Your task to perform on an android device: When is my next meeting? Image 0: 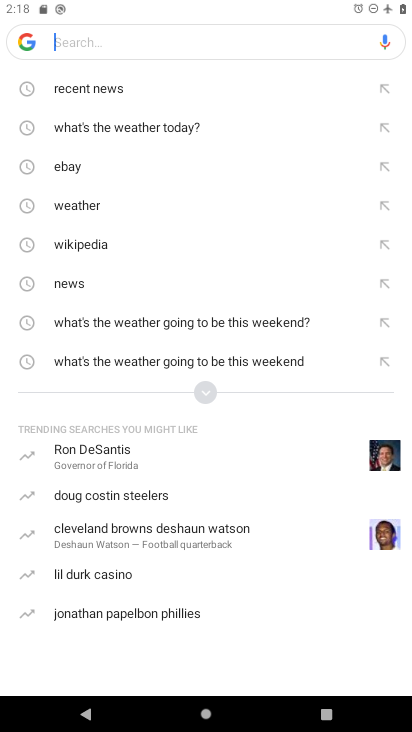
Step 0: press home button
Your task to perform on an android device: When is my next meeting? Image 1: 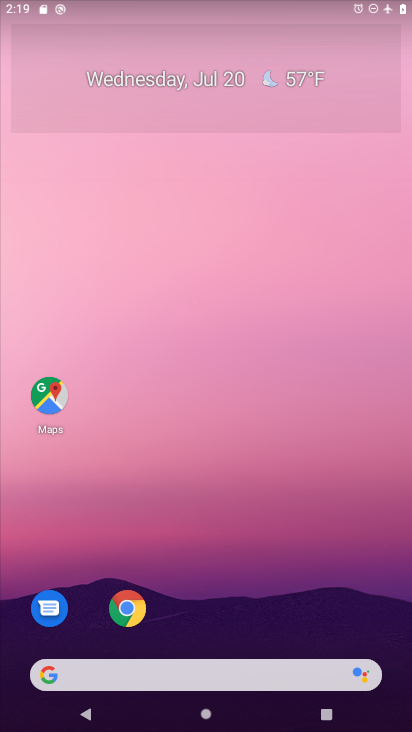
Step 1: drag from (276, 709) to (411, 194)
Your task to perform on an android device: When is my next meeting? Image 2: 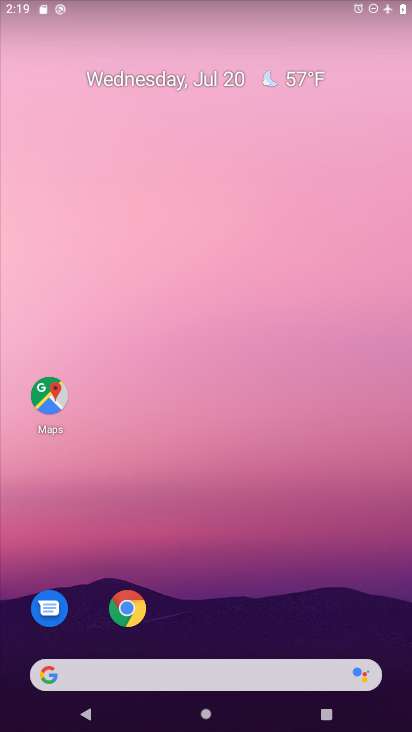
Step 2: drag from (246, 517) to (299, 140)
Your task to perform on an android device: When is my next meeting? Image 3: 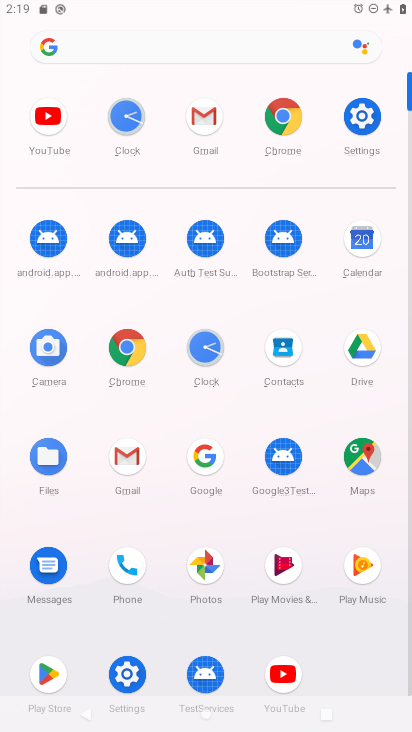
Step 3: click (360, 241)
Your task to perform on an android device: When is my next meeting? Image 4: 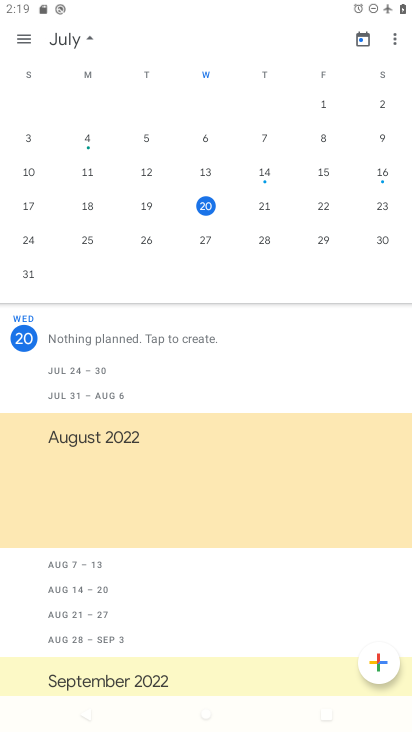
Step 4: task complete